Your task to perform on an android device: Open the map Image 0: 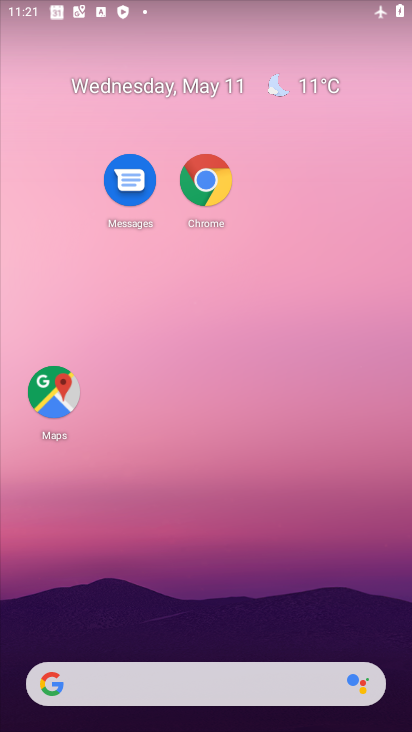
Step 0: drag from (217, 600) to (167, 117)
Your task to perform on an android device: Open the map Image 1: 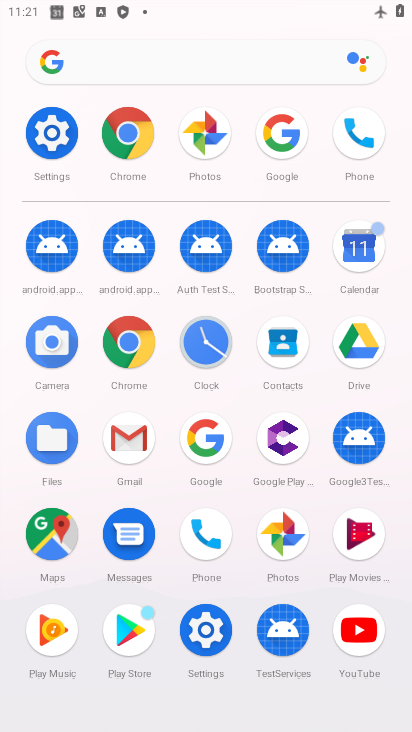
Step 1: click (71, 542)
Your task to perform on an android device: Open the map Image 2: 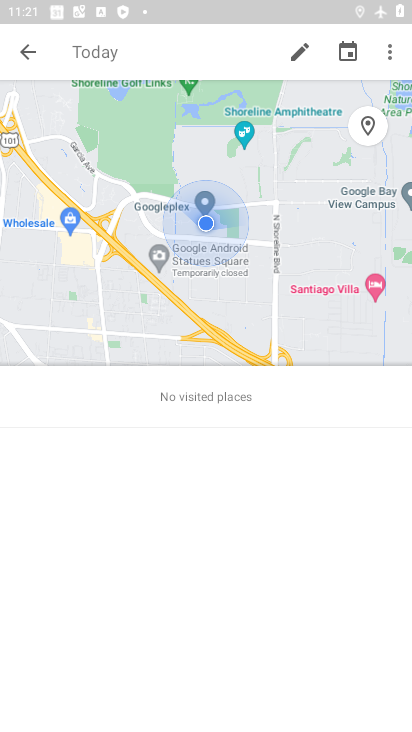
Step 2: task complete